Your task to perform on an android device: turn off picture-in-picture Image 0: 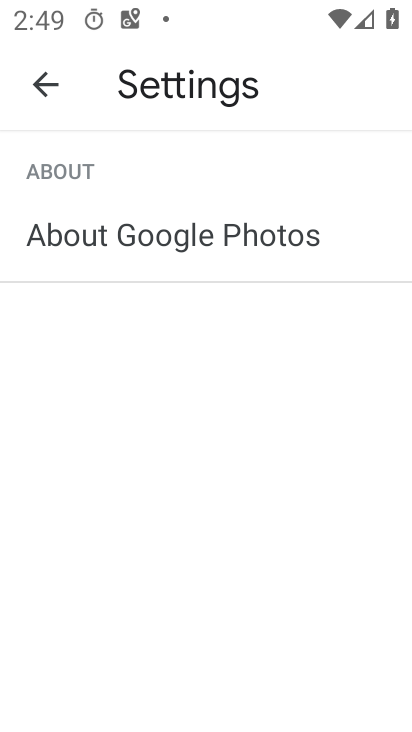
Step 0: press home button
Your task to perform on an android device: turn off picture-in-picture Image 1: 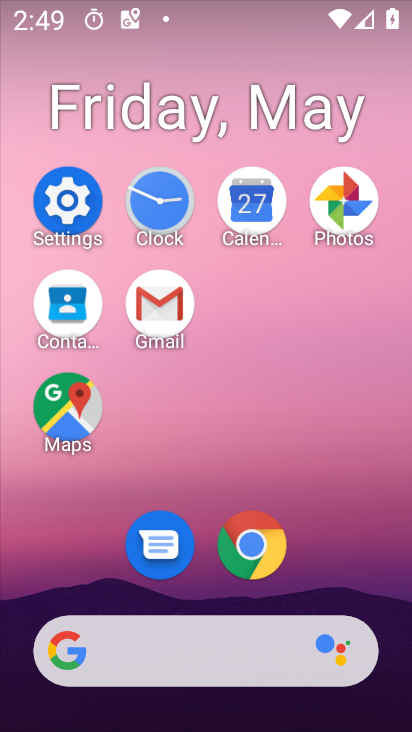
Step 1: click (257, 536)
Your task to perform on an android device: turn off picture-in-picture Image 2: 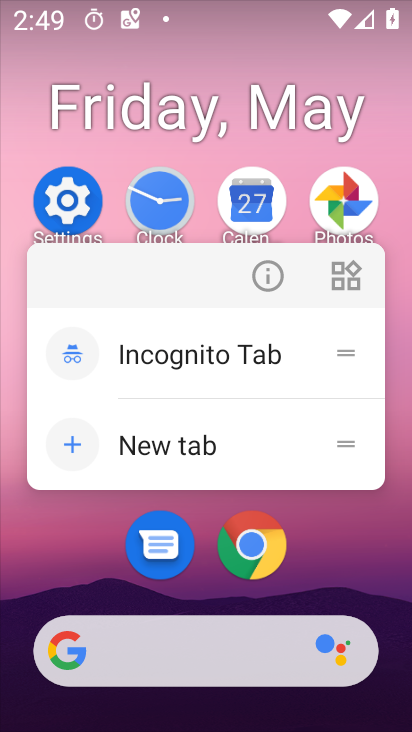
Step 2: click (286, 274)
Your task to perform on an android device: turn off picture-in-picture Image 3: 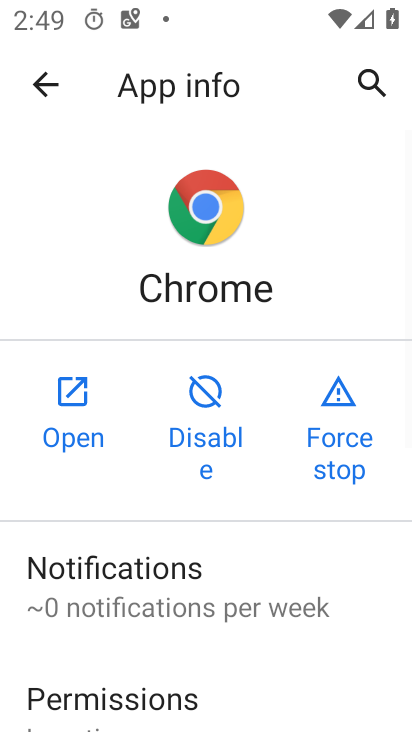
Step 3: drag from (243, 652) to (258, 52)
Your task to perform on an android device: turn off picture-in-picture Image 4: 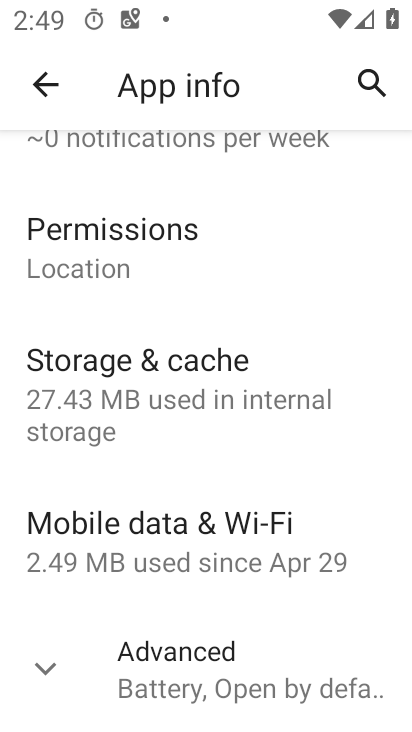
Step 4: click (207, 650)
Your task to perform on an android device: turn off picture-in-picture Image 5: 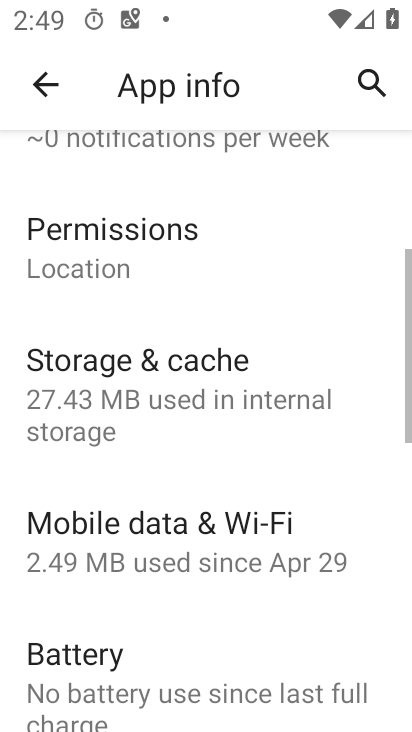
Step 5: drag from (209, 650) to (168, 115)
Your task to perform on an android device: turn off picture-in-picture Image 6: 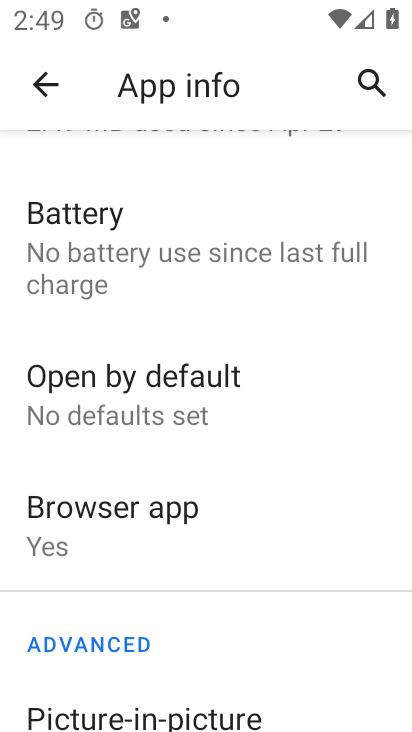
Step 6: drag from (201, 682) to (181, 157)
Your task to perform on an android device: turn off picture-in-picture Image 7: 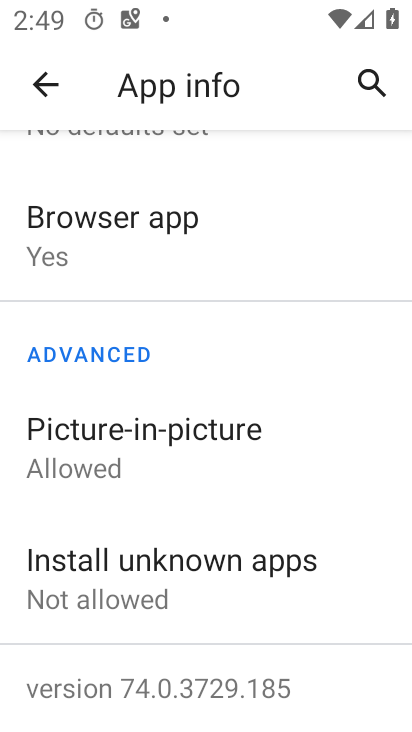
Step 7: click (175, 448)
Your task to perform on an android device: turn off picture-in-picture Image 8: 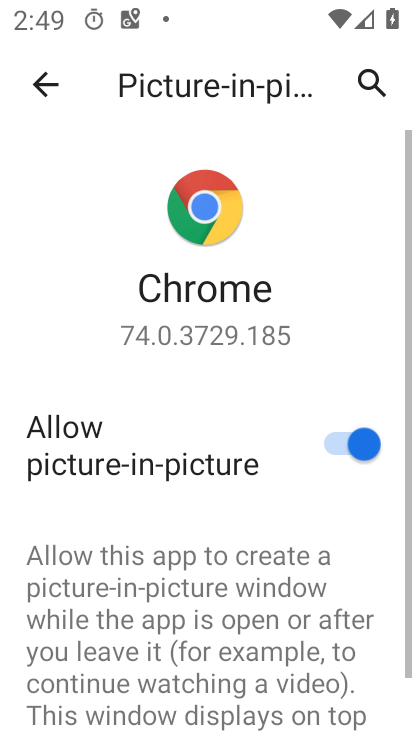
Step 8: click (340, 437)
Your task to perform on an android device: turn off picture-in-picture Image 9: 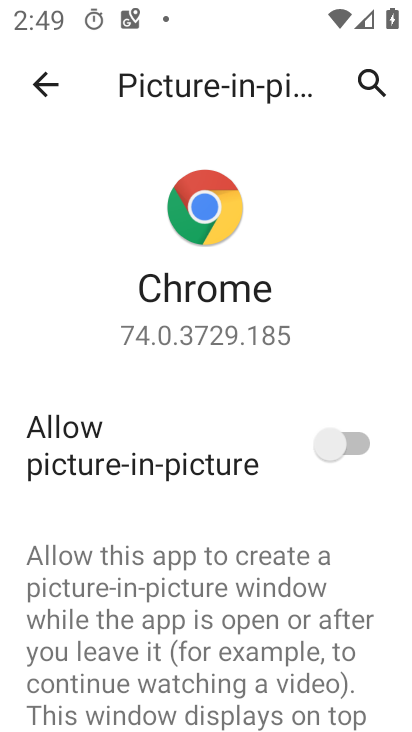
Step 9: task complete